Your task to perform on an android device: open app "YouTube Kids" Image 0: 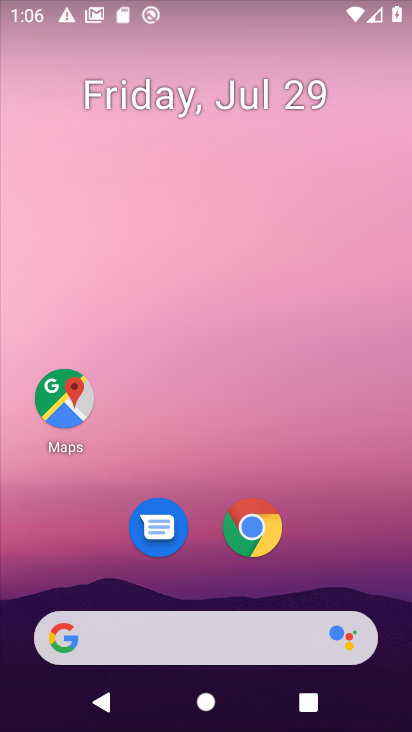
Step 0: drag from (232, 726) to (227, 64)
Your task to perform on an android device: open app "YouTube Kids" Image 1: 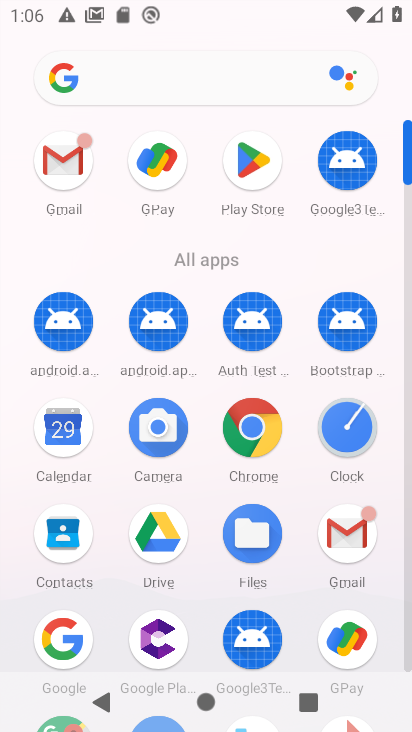
Step 1: task complete